Your task to perform on an android device: star an email in the gmail app Image 0: 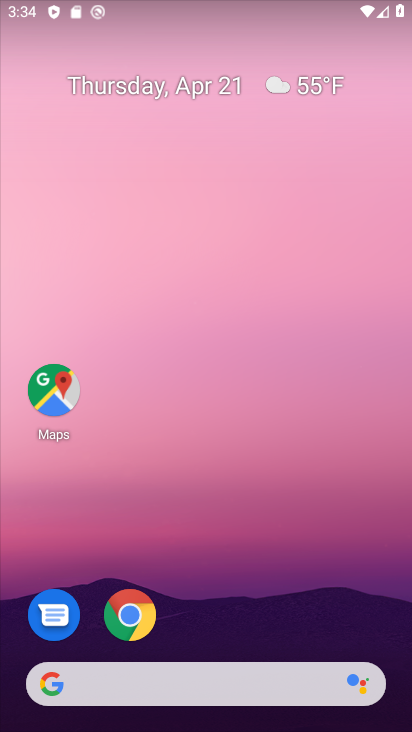
Step 0: drag from (254, 505) to (145, 43)
Your task to perform on an android device: star an email in the gmail app Image 1: 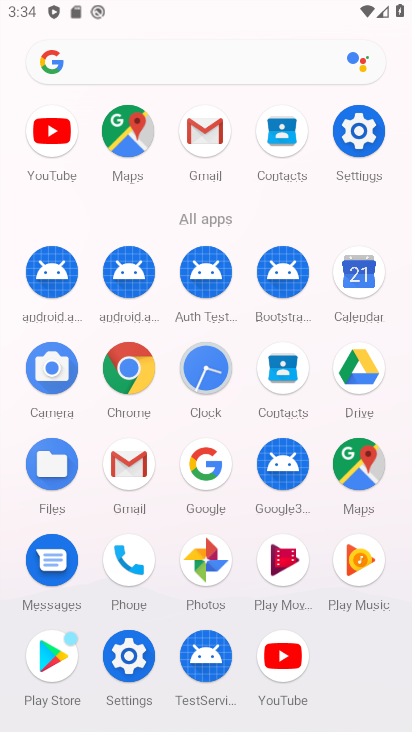
Step 1: drag from (7, 465) to (11, 147)
Your task to perform on an android device: star an email in the gmail app Image 2: 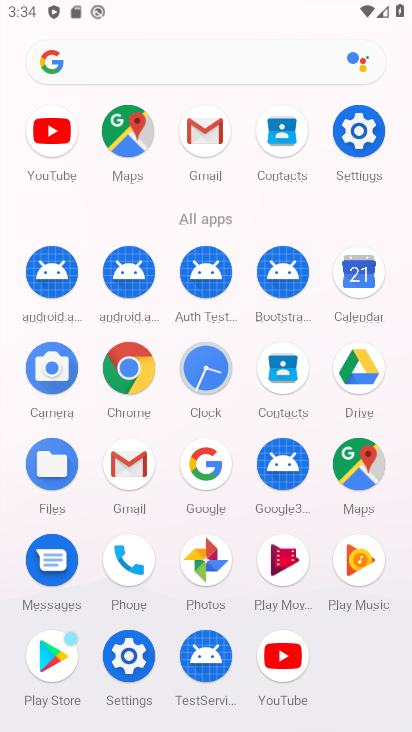
Step 2: click (201, 119)
Your task to perform on an android device: star an email in the gmail app Image 3: 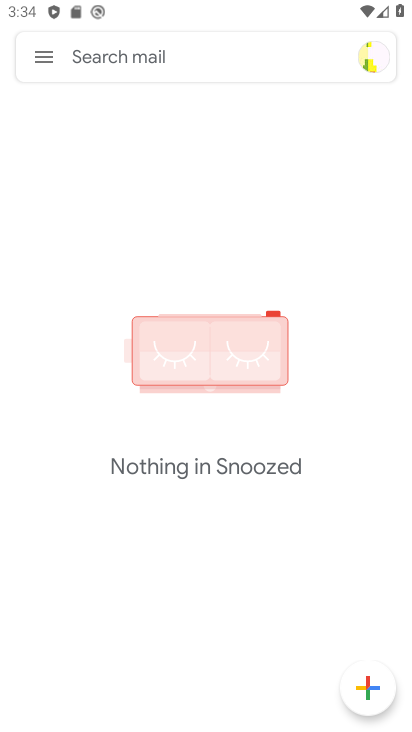
Step 3: click (42, 50)
Your task to perform on an android device: star an email in the gmail app Image 4: 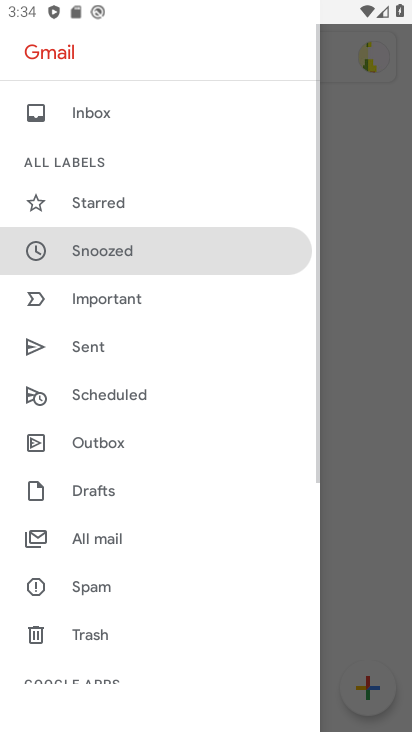
Step 4: drag from (160, 608) to (176, 168)
Your task to perform on an android device: star an email in the gmail app Image 5: 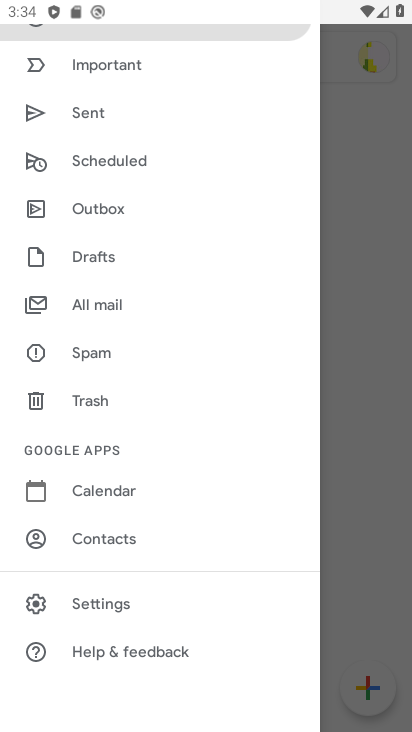
Step 5: click (107, 302)
Your task to perform on an android device: star an email in the gmail app Image 6: 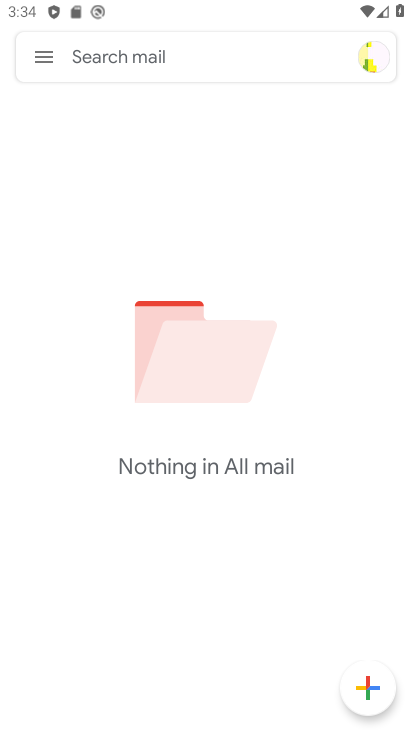
Step 6: task complete